Your task to perform on an android device: open chrome privacy settings Image 0: 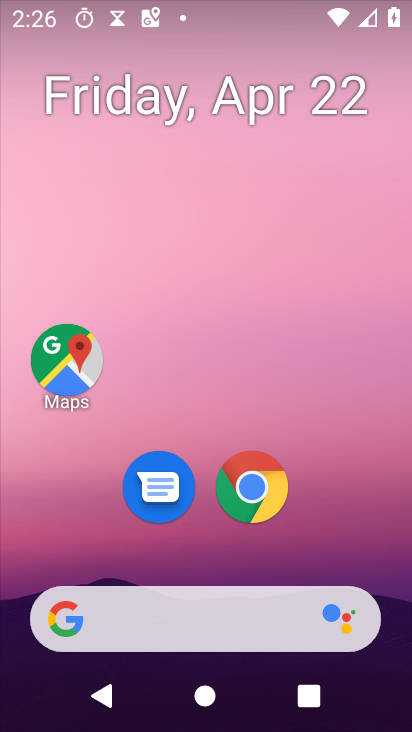
Step 0: drag from (142, 564) to (324, 41)
Your task to perform on an android device: open chrome privacy settings Image 1: 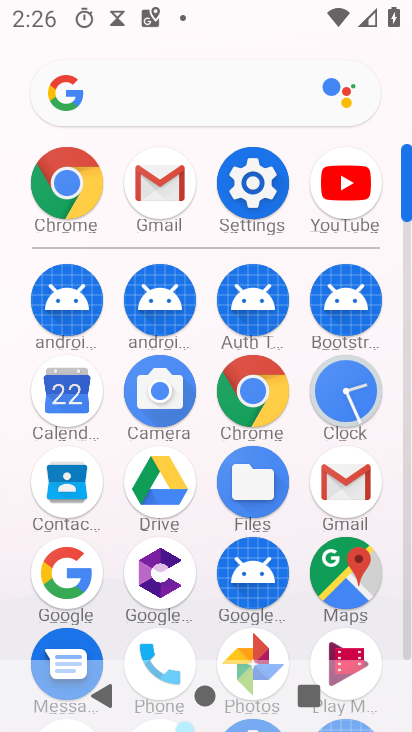
Step 1: click (256, 390)
Your task to perform on an android device: open chrome privacy settings Image 2: 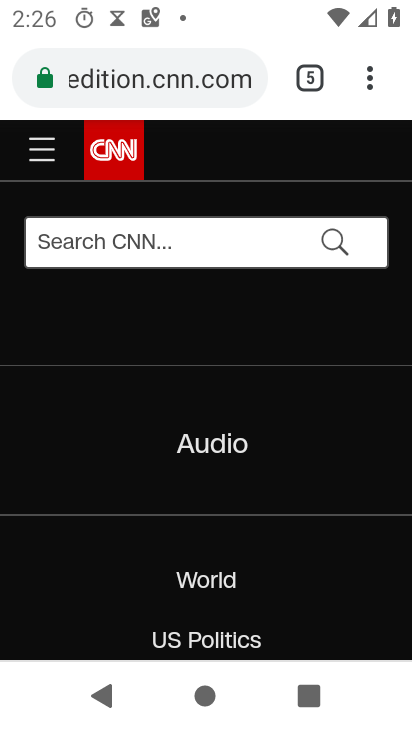
Step 2: drag from (369, 82) to (126, 554)
Your task to perform on an android device: open chrome privacy settings Image 3: 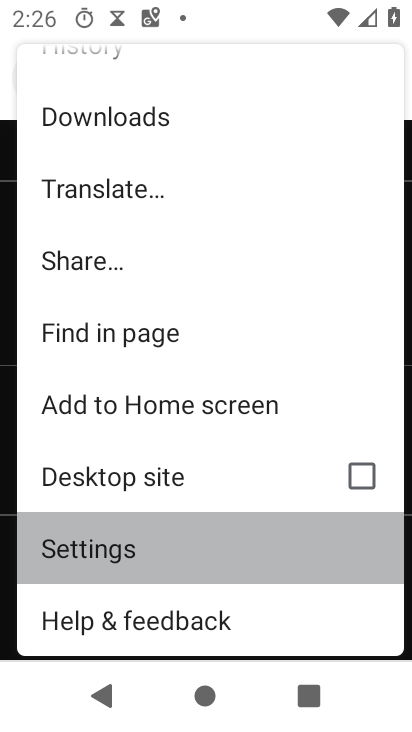
Step 3: click (126, 554)
Your task to perform on an android device: open chrome privacy settings Image 4: 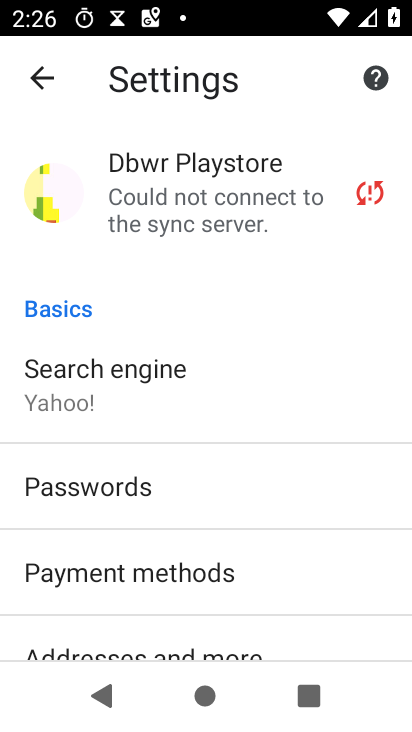
Step 4: drag from (161, 610) to (404, 146)
Your task to perform on an android device: open chrome privacy settings Image 5: 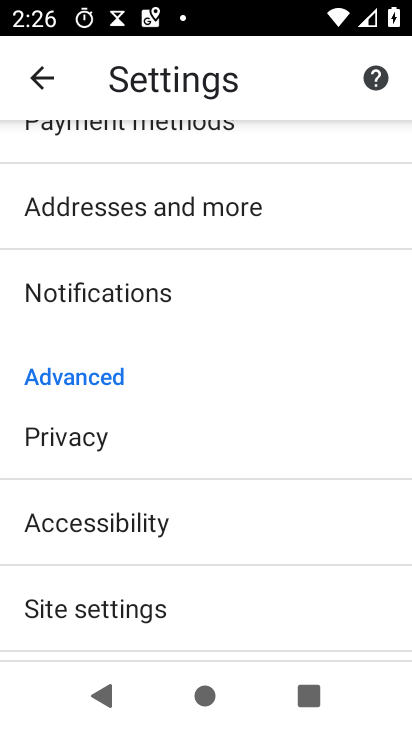
Step 5: click (78, 444)
Your task to perform on an android device: open chrome privacy settings Image 6: 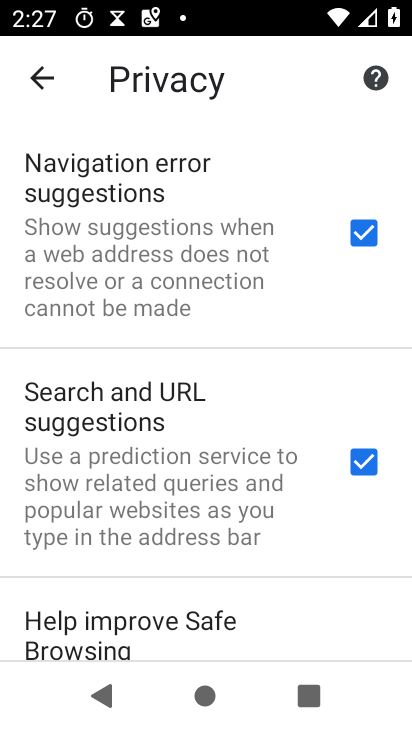
Step 6: task complete